Your task to perform on an android device: Open Chrome and go to the settings page Image 0: 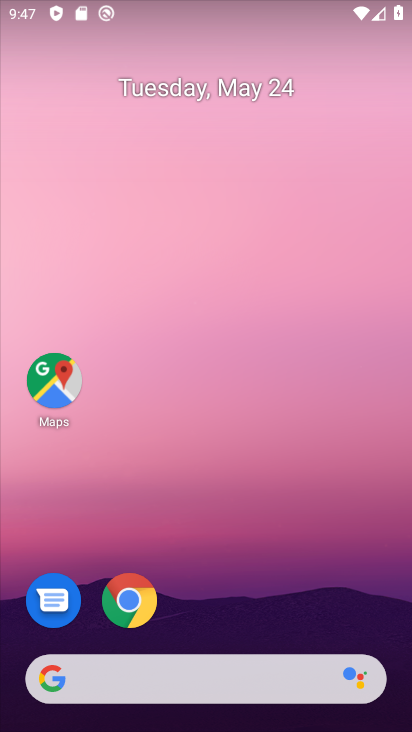
Step 0: click (126, 609)
Your task to perform on an android device: Open Chrome and go to the settings page Image 1: 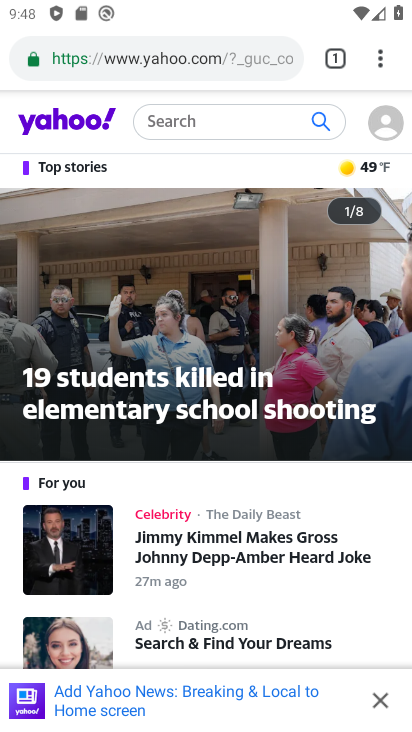
Step 1: click (377, 63)
Your task to perform on an android device: Open Chrome and go to the settings page Image 2: 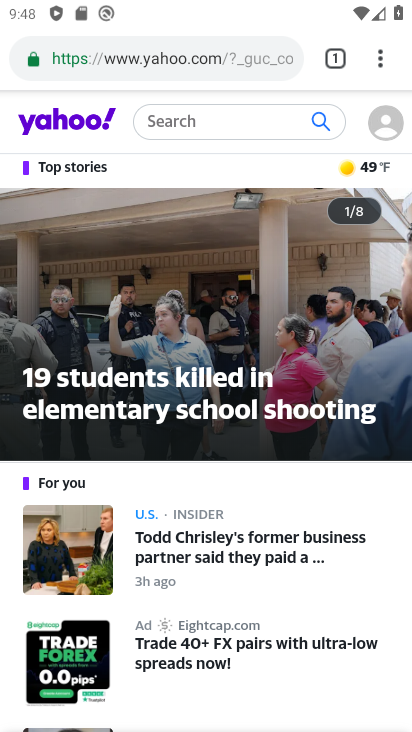
Step 2: click (380, 57)
Your task to perform on an android device: Open Chrome and go to the settings page Image 3: 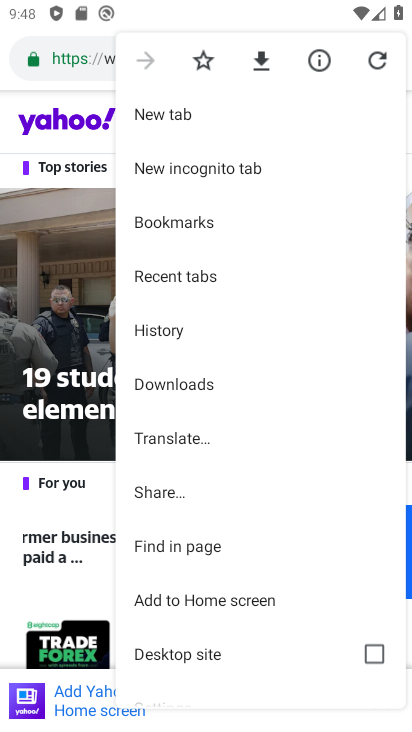
Step 3: drag from (226, 528) to (248, 372)
Your task to perform on an android device: Open Chrome and go to the settings page Image 4: 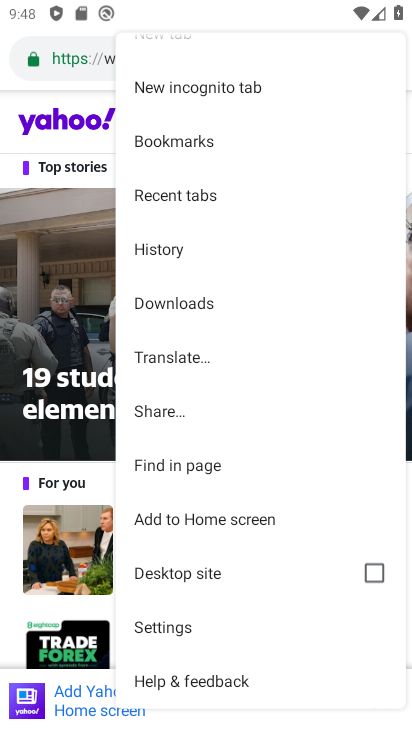
Step 4: click (152, 630)
Your task to perform on an android device: Open Chrome and go to the settings page Image 5: 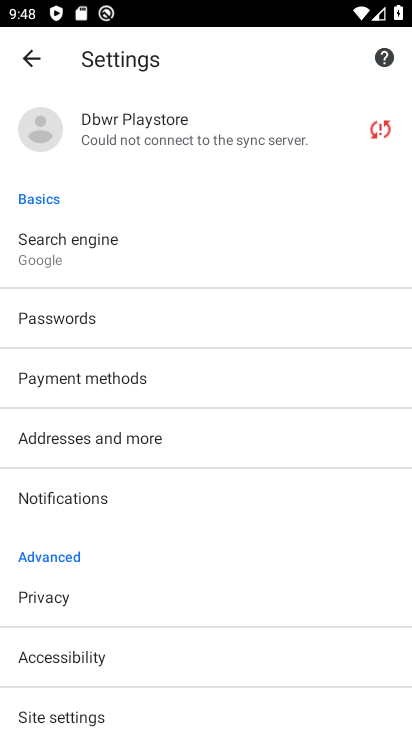
Step 5: task complete